Your task to perform on an android device: check data usage Image 0: 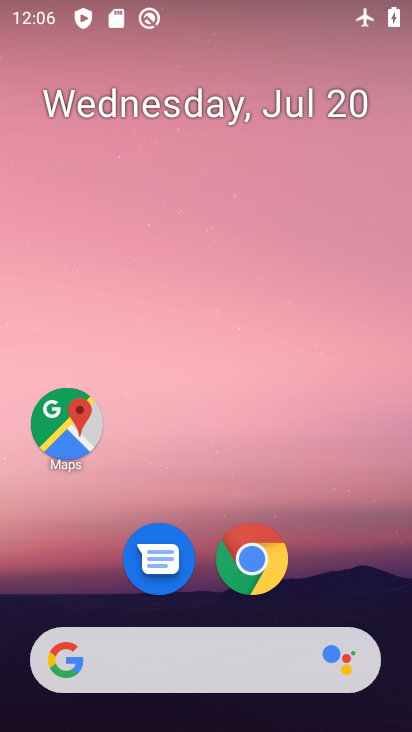
Step 0: drag from (360, 582) to (375, 95)
Your task to perform on an android device: check data usage Image 1: 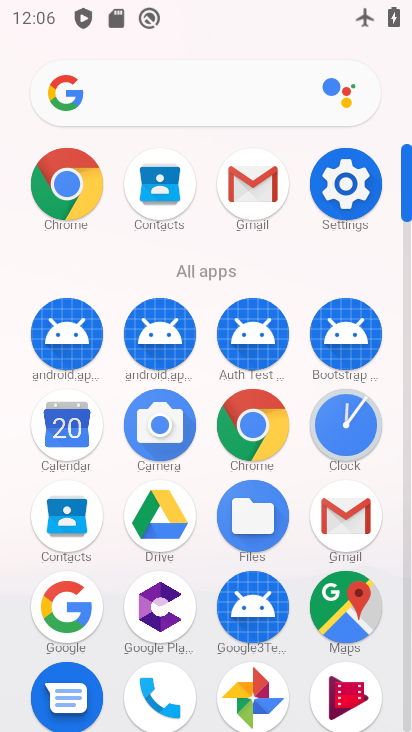
Step 1: click (345, 202)
Your task to perform on an android device: check data usage Image 2: 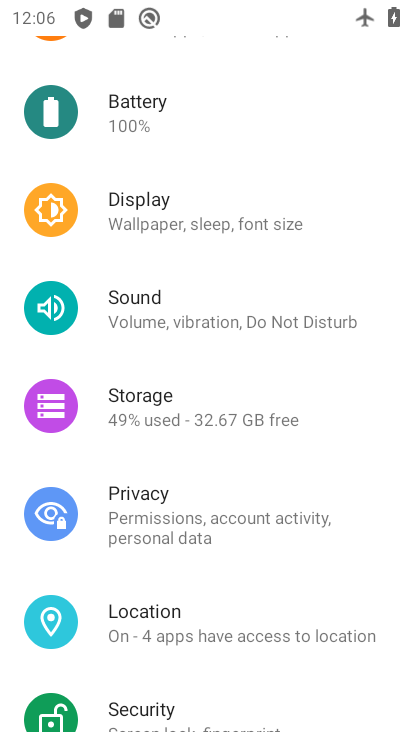
Step 2: drag from (349, 254) to (358, 383)
Your task to perform on an android device: check data usage Image 3: 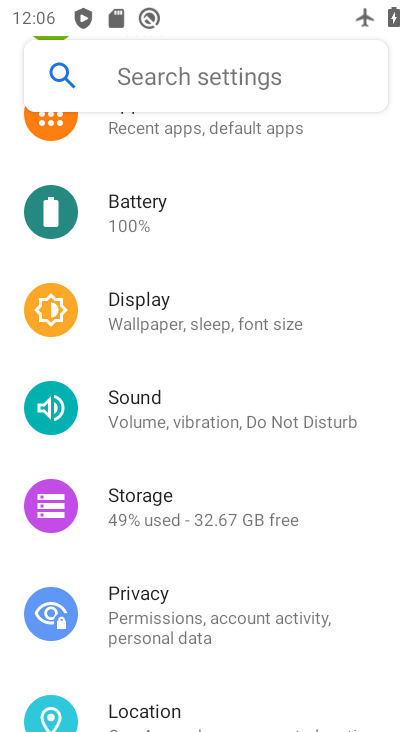
Step 3: drag from (358, 252) to (361, 369)
Your task to perform on an android device: check data usage Image 4: 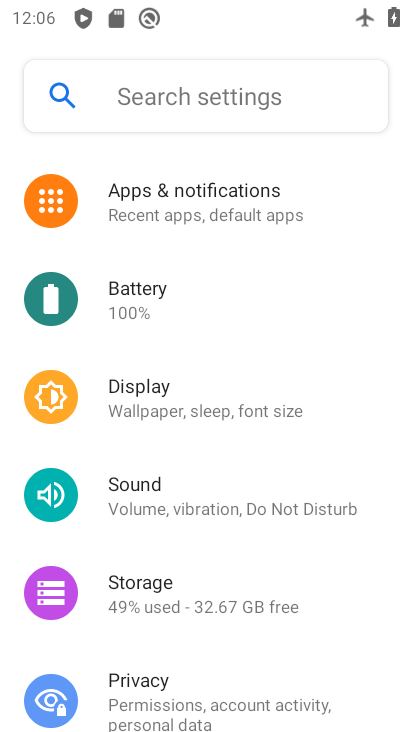
Step 4: drag from (361, 209) to (349, 339)
Your task to perform on an android device: check data usage Image 5: 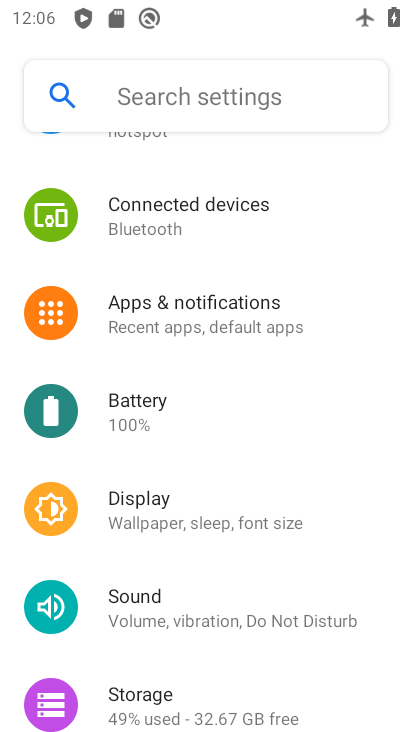
Step 5: drag from (336, 189) to (341, 315)
Your task to perform on an android device: check data usage Image 6: 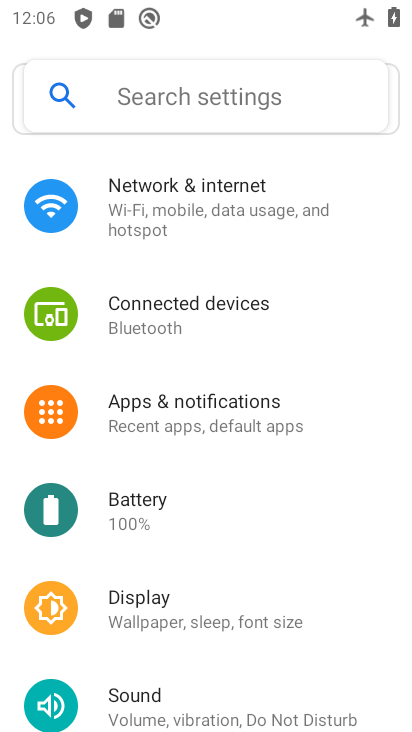
Step 6: drag from (344, 176) to (344, 375)
Your task to perform on an android device: check data usage Image 7: 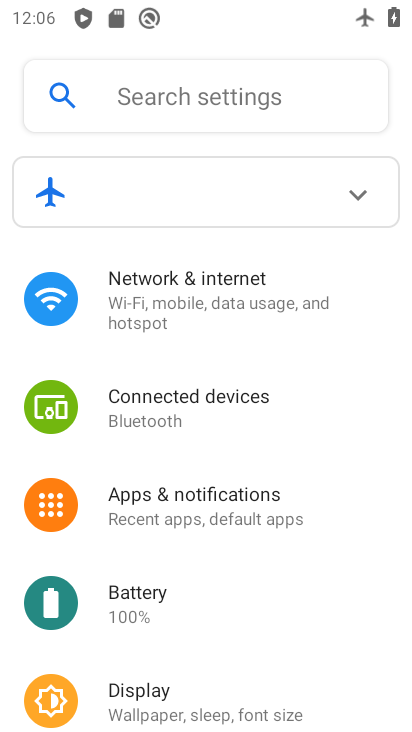
Step 7: click (243, 304)
Your task to perform on an android device: check data usage Image 8: 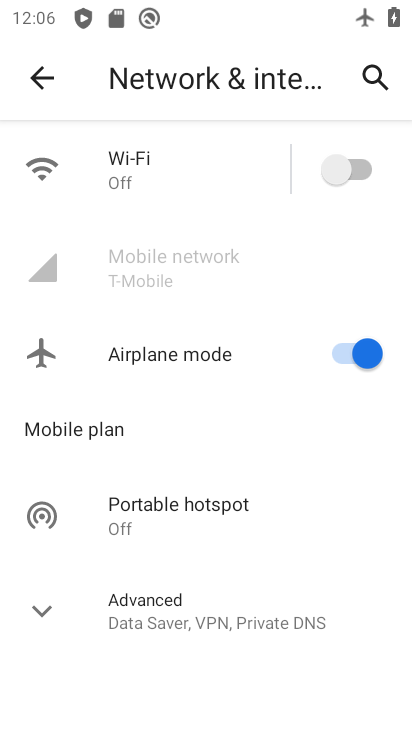
Step 8: task complete